Your task to perform on an android device: find photos in the google photos app Image 0: 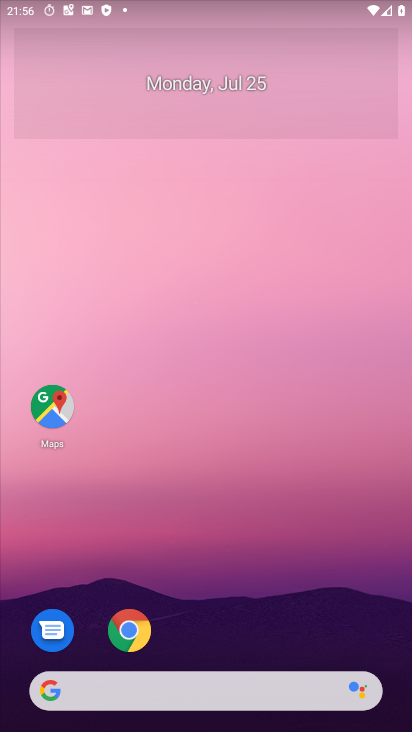
Step 0: press home button
Your task to perform on an android device: find photos in the google photos app Image 1: 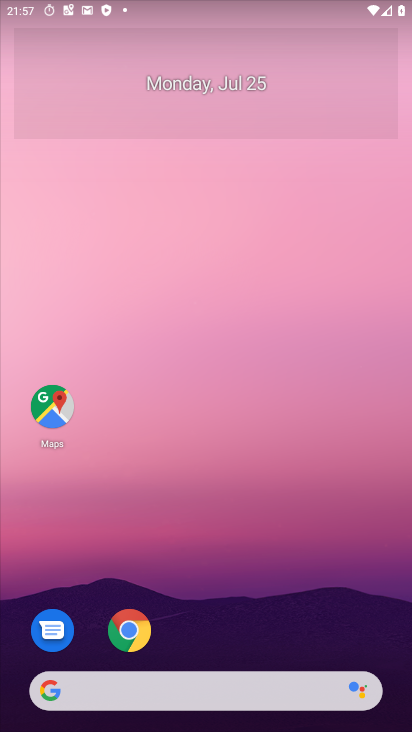
Step 1: drag from (210, 615) to (268, 33)
Your task to perform on an android device: find photos in the google photos app Image 2: 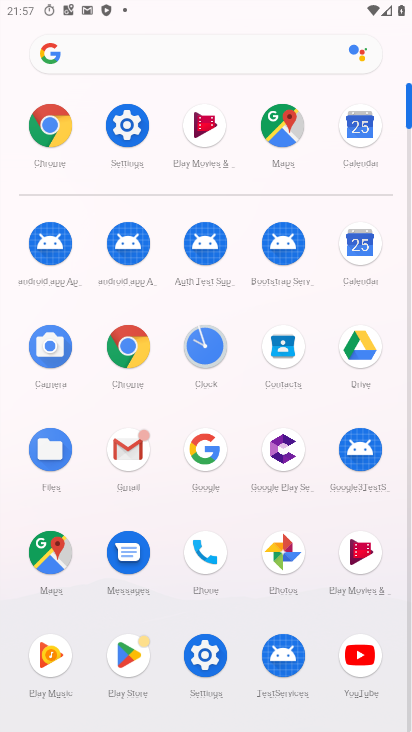
Step 2: click (291, 551)
Your task to perform on an android device: find photos in the google photos app Image 3: 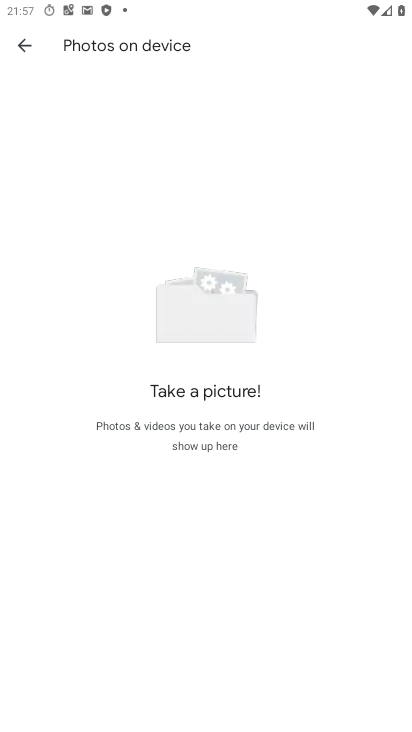
Step 3: click (21, 43)
Your task to perform on an android device: find photos in the google photos app Image 4: 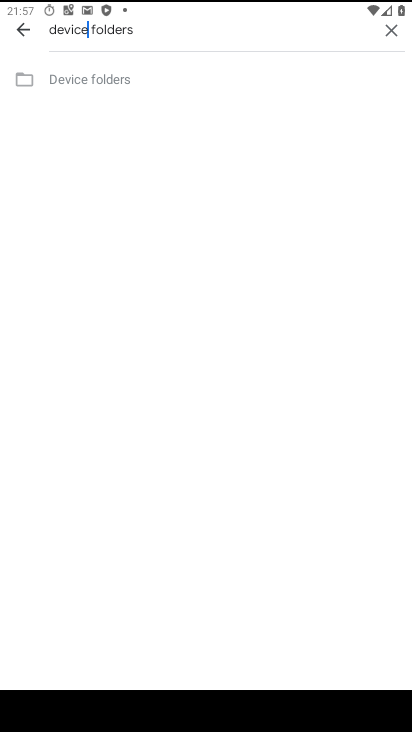
Step 4: click (27, 22)
Your task to perform on an android device: find photos in the google photos app Image 5: 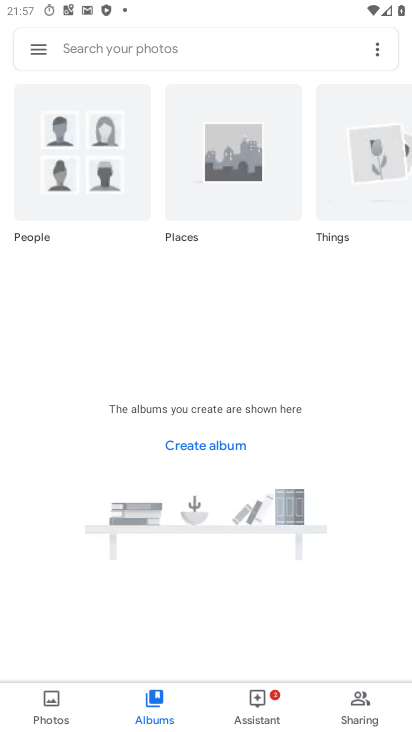
Step 5: click (46, 696)
Your task to perform on an android device: find photos in the google photos app Image 6: 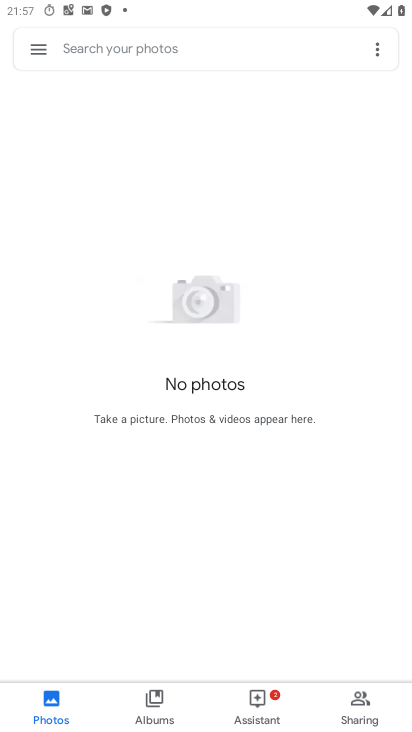
Step 6: task complete